Your task to perform on an android device: Open the calendar app, open the side menu, and click the "Day" option Image 0: 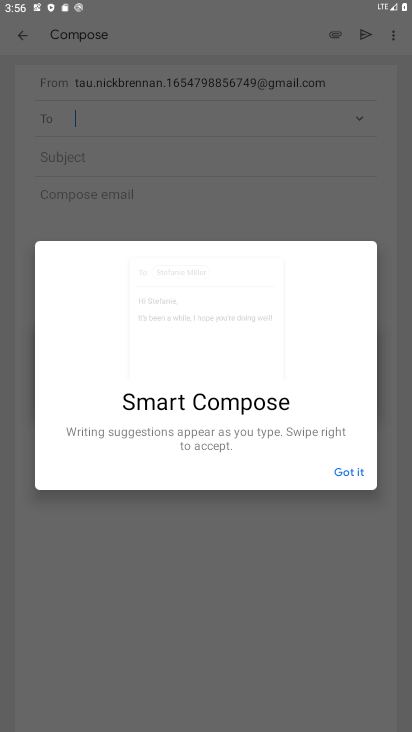
Step 0: press home button
Your task to perform on an android device: Open the calendar app, open the side menu, and click the "Day" option Image 1: 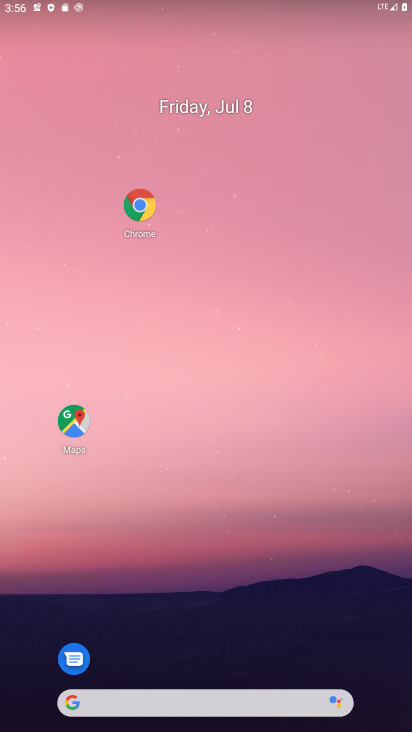
Step 1: drag from (182, 650) to (227, 231)
Your task to perform on an android device: Open the calendar app, open the side menu, and click the "Day" option Image 2: 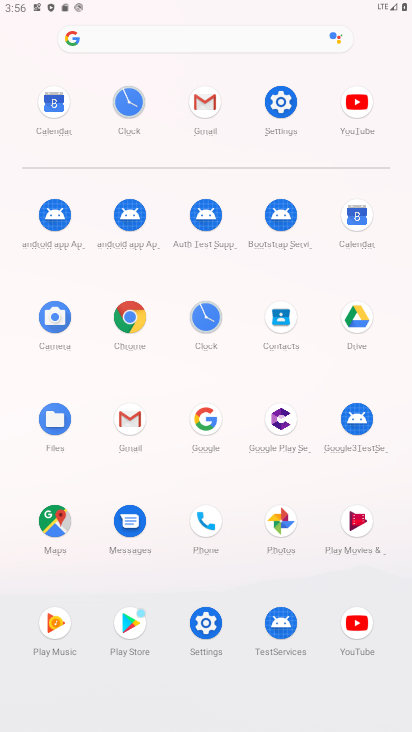
Step 2: click (346, 223)
Your task to perform on an android device: Open the calendar app, open the side menu, and click the "Day" option Image 3: 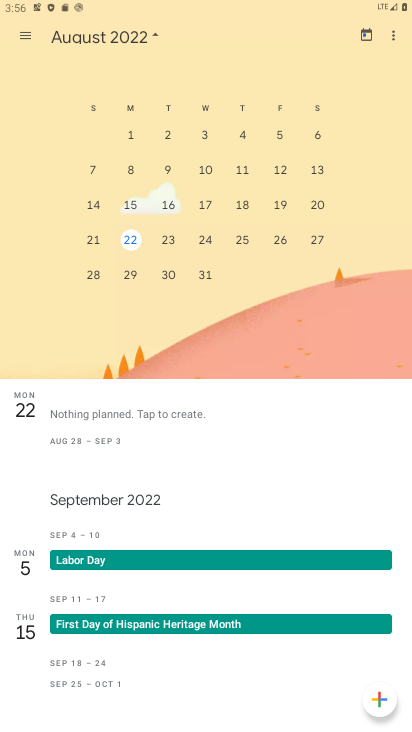
Step 3: click (21, 36)
Your task to perform on an android device: Open the calendar app, open the side menu, and click the "Day" option Image 4: 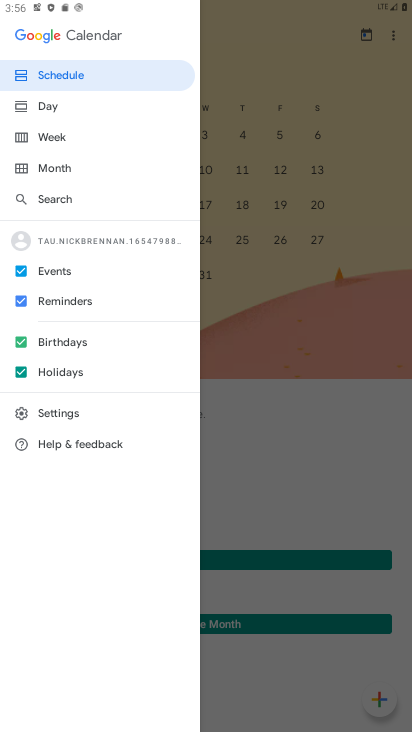
Step 4: click (66, 110)
Your task to perform on an android device: Open the calendar app, open the side menu, and click the "Day" option Image 5: 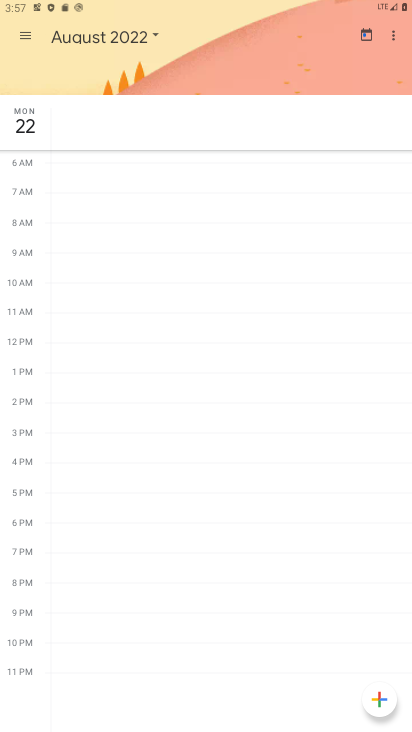
Step 5: click (17, 23)
Your task to perform on an android device: Open the calendar app, open the side menu, and click the "Day" option Image 6: 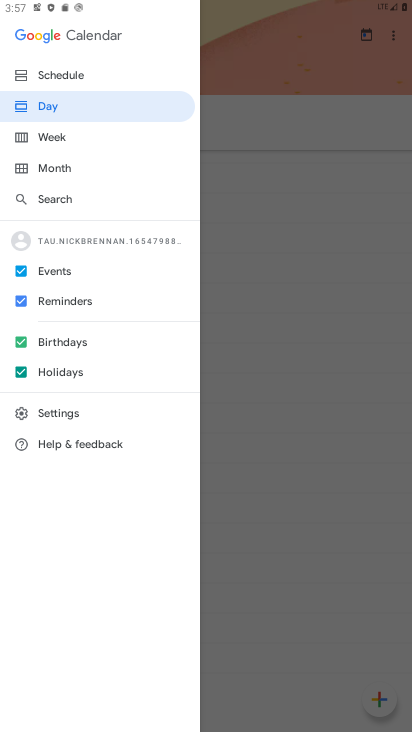
Step 6: task complete